Your task to perform on an android device: Open Yahoo.com Image 0: 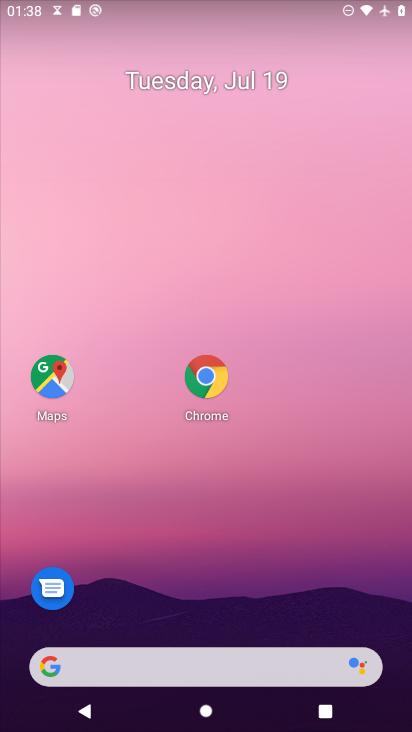
Step 0: press home button
Your task to perform on an android device: Open Yahoo.com Image 1: 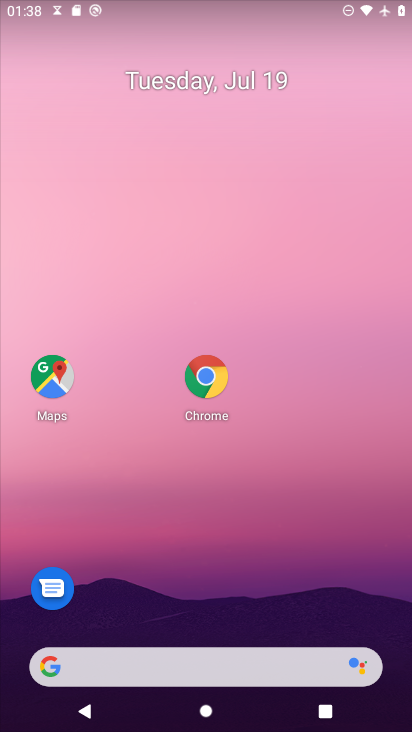
Step 1: click (57, 659)
Your task to perform on an android device: Open Yahoo.com Image 2: 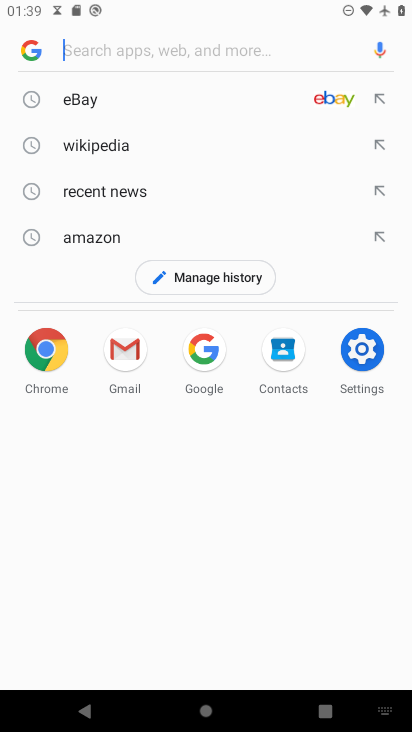
Step 2: type "Yahoo.com"
Your task to perform on an android device: Open Yahoo.com Image 3: 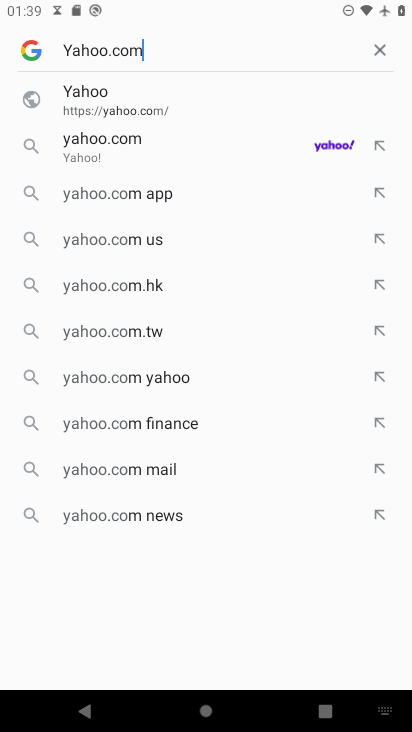
Step 3: press enter
Your task to perform on an android device: Open Yahoo.com Image 4: 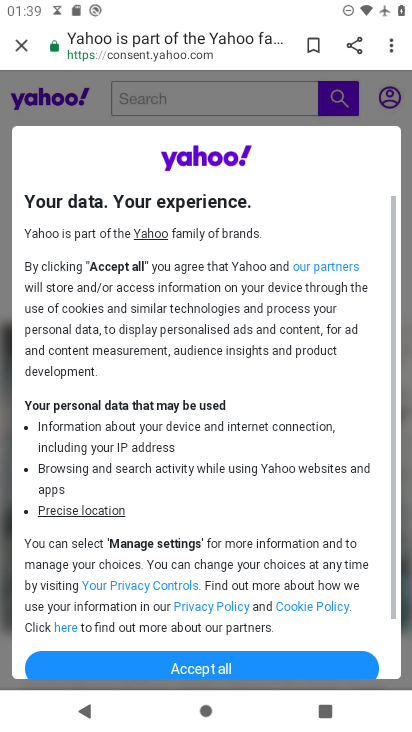
Step 4: click (252, 665)
Your task to perform on an android device: Open Yahoo.com Image 5: 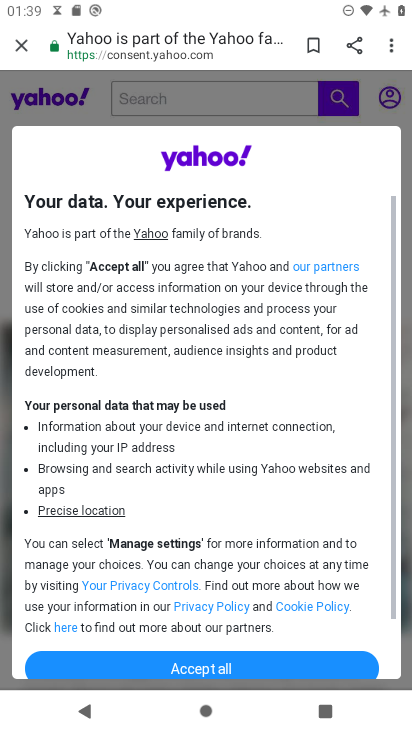
Step 5: click (243, 668)
Your task to perform on an android device: Open Yahoo.com Image 6: 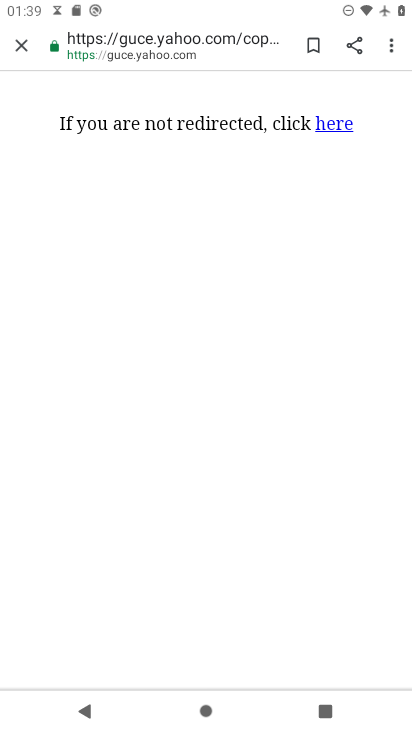
Step 6: click (341, 122)
Your task to perform on an android device: Open Yahoo.com Image 7: 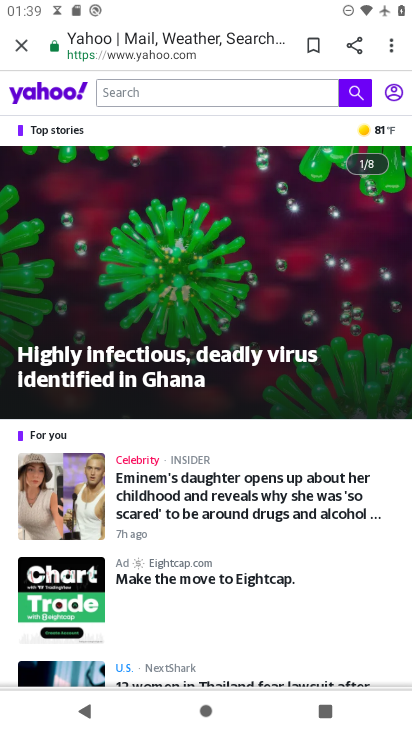
Step 7: task complete